Your task to perform on an android device: change the clock style Image 0: 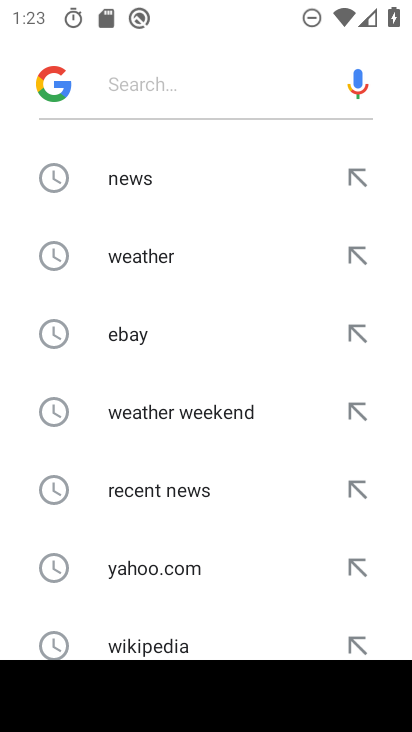
Step 0: press home button
Your task to perform on an android device: change the clock style Image 1: 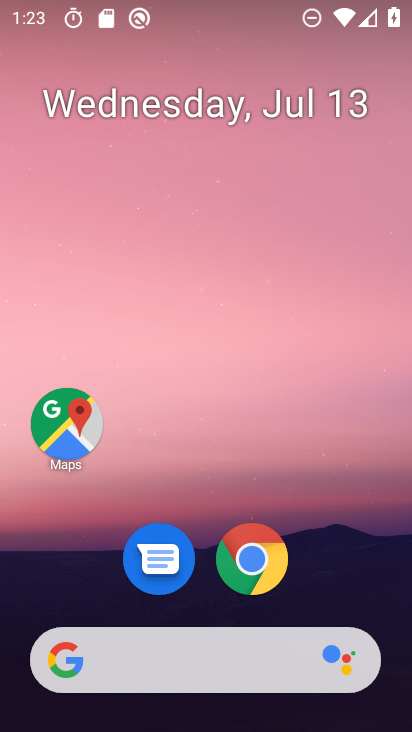
Step 1: drag from (237, 694) to (228, 165)
Your task to perform on an android device: change the clock style Image 2: 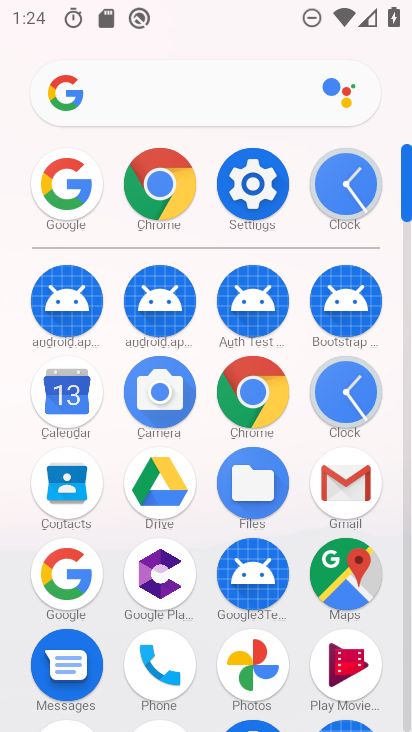
Step 2: click (347, 400)
Your task to perform on an android device: change the clock style Image 3: 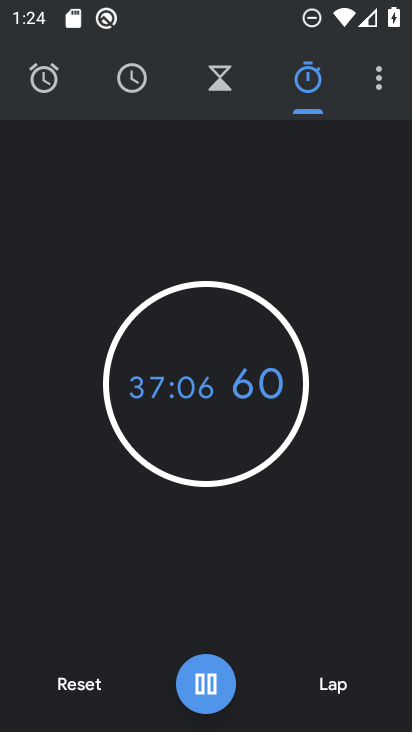
Step 3: click (380, 91)
Your task to perform on an android device: change the clock style Image 4: 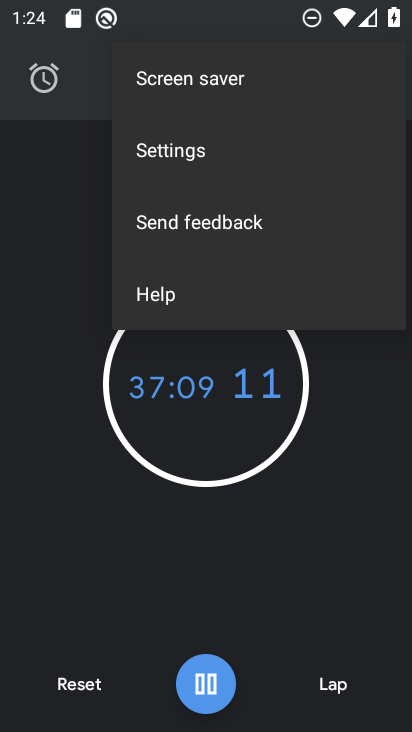
Step 4: click (176, 163)
Your task to perform on an android device: change the clock style Image 5: 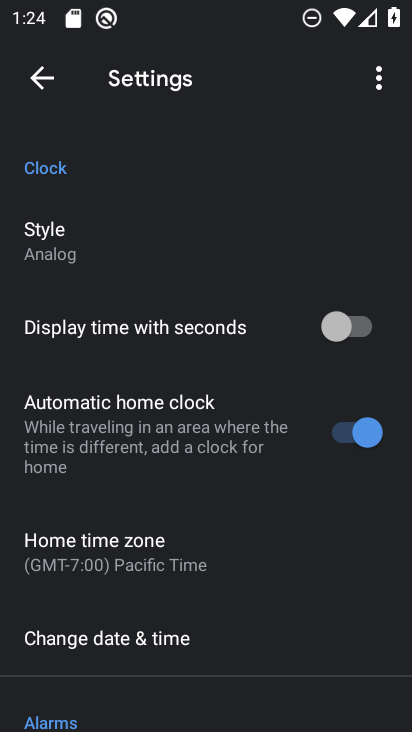
Step 5: click (87, 254)
Your task to perform on an android device: change the clock style Image 6: 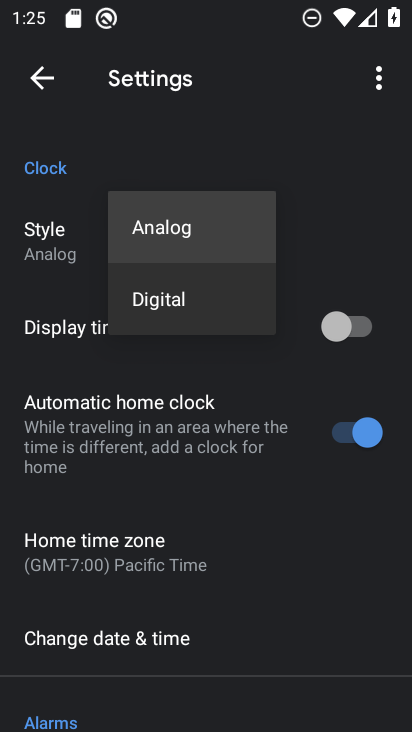
Step 6: click (200, 304)
Your task to perform on an android device: change the clock style Image 7: 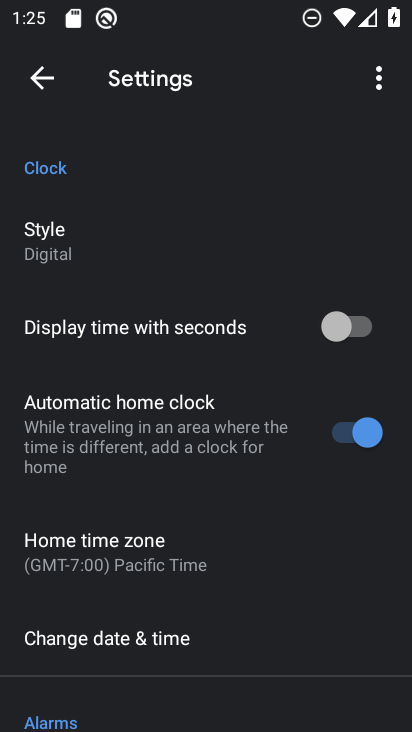
Step 7: task complete